Your task to perform on an android device: toggle javascript in the chrome app Image 0: 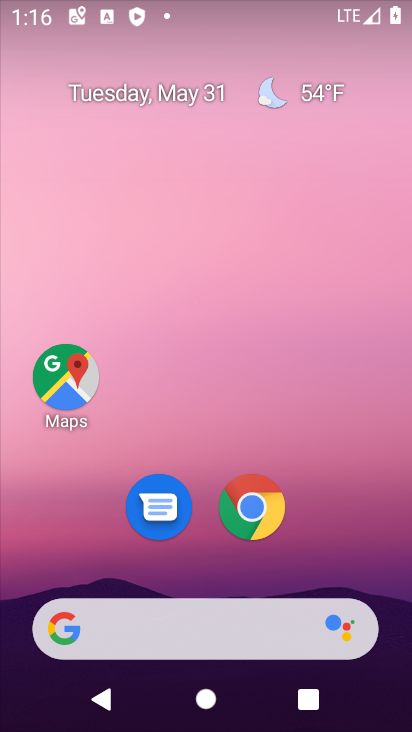
Step 0: drag from (388, 625) to (261, 125)
Your task to perform on an android device: toggle javascript in the chrome app Image 1: 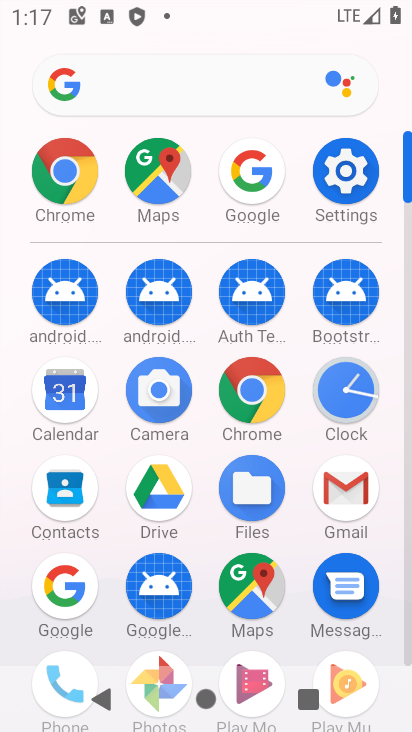
Step 1: click (68, 174)
Your task to perform on an android device: toggle javascript in the chrome app Image 2: 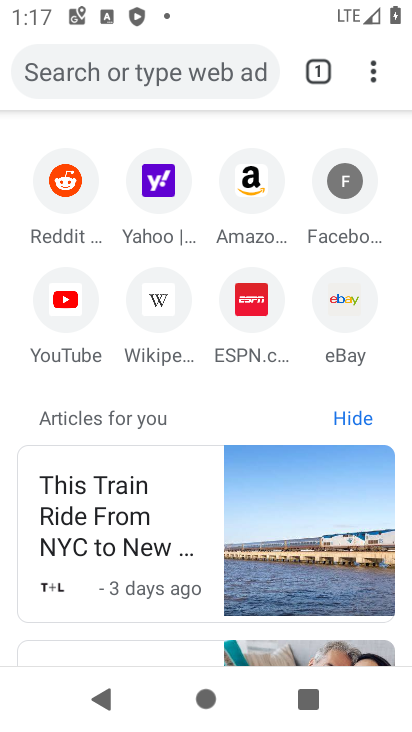
Step 2: click (379, 69)
Your task to perform on an android device: toggle javascript in the chrome app Image 3: 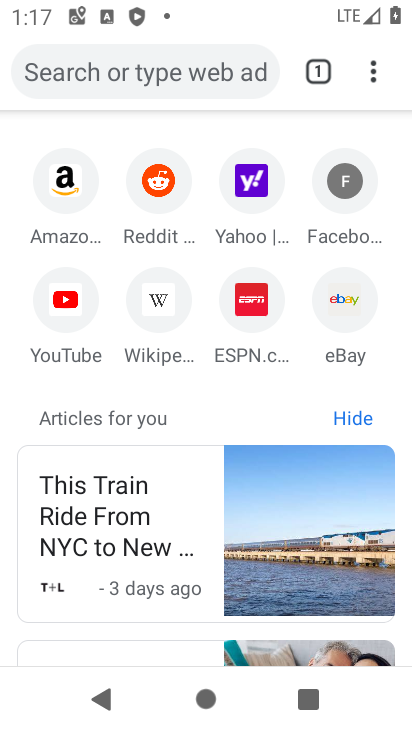
Step 3: click (376, 59)
Your task to perform on an android device: toggle javascript in the chrome app Image 4: 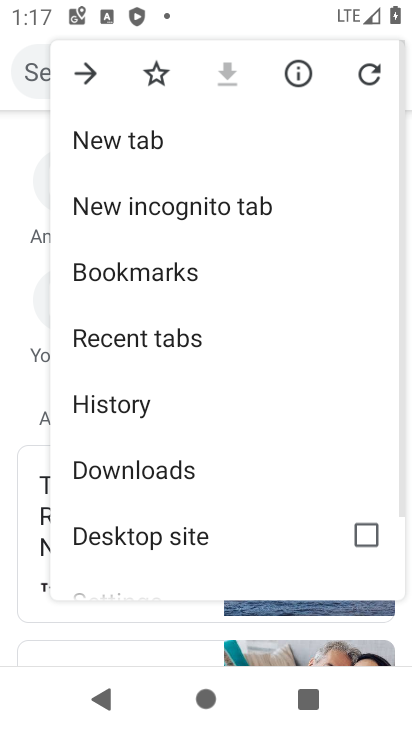
Step 4: drag from (146, 514) to (168, 99)
Your task to perform on an android device: toggle javascript in the chrome app Image 5: 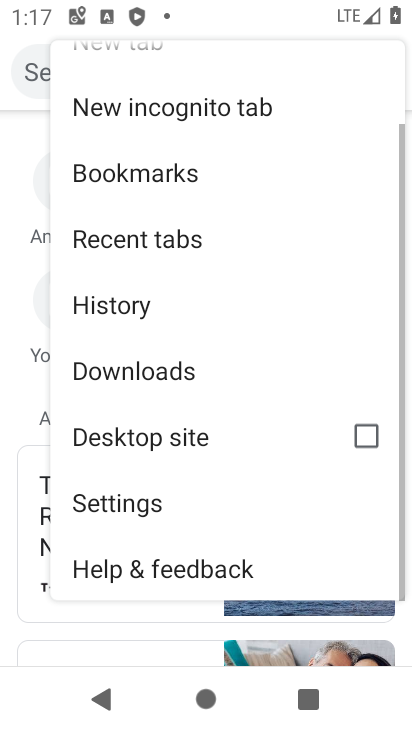
Step 5: click (125, 488)
Your task to perform on an android device: toggle javascript in the chrome app Image 6: 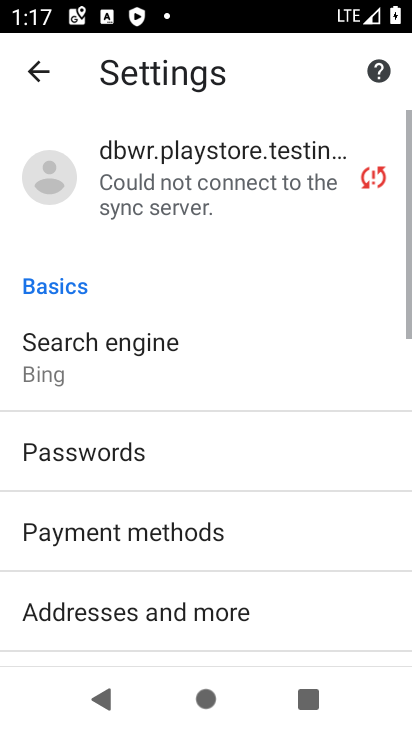
Step 6: drag from (115, 565) to (88, 98)
Your task to perform on an android device: toggle javascript in the chrome app Image 7: 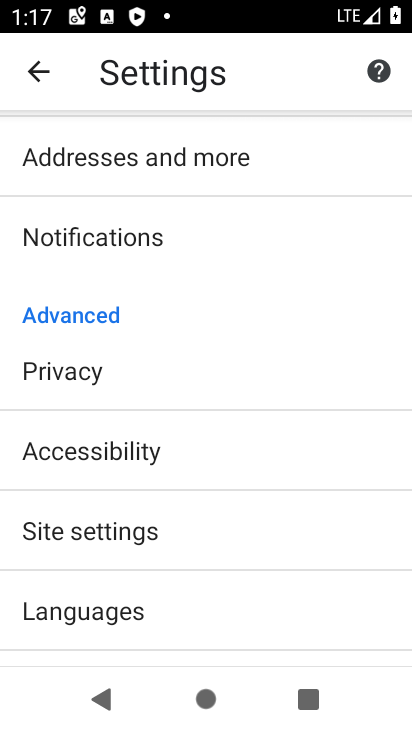
Step 7: click (146, 543)
Your task to perform on an android device: toggle javascript in the chrome app Image 8: 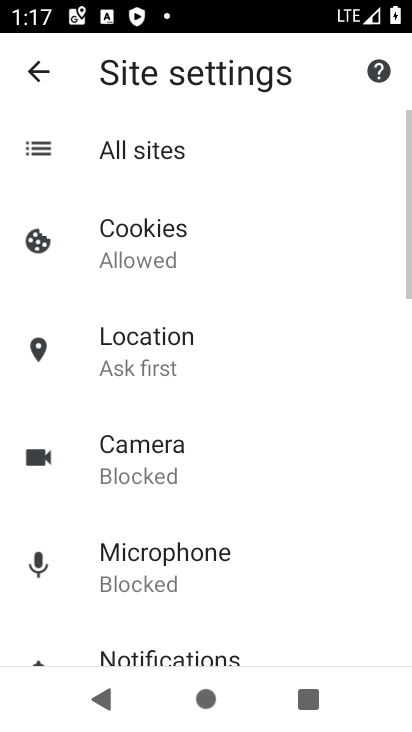
Step 8: drag from (177, 609) to (171, 137)
Your task to perform on an android device: toggle javascript in the chrome app Image 9: 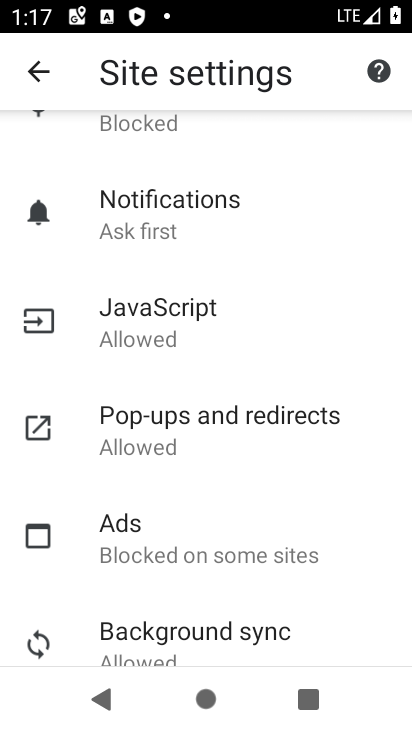
Step 9: click (213, 290)
Your task to perform on an android device: toggle javascript in the chrome app Image 10: 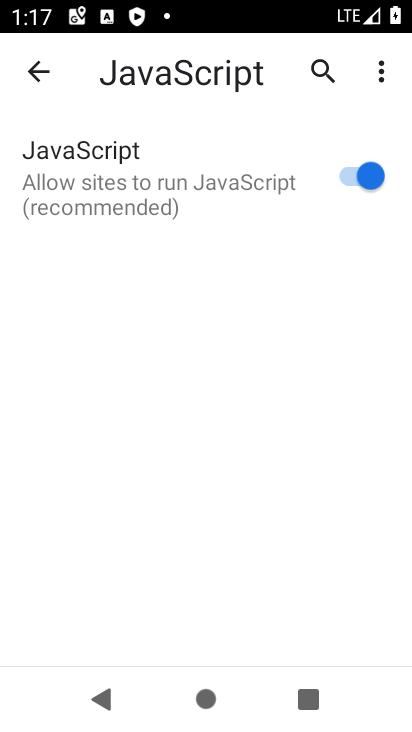
Step 10: click (331, 169)
Your task to perform on an android device: toggle javascript in the chrome app Image 11: 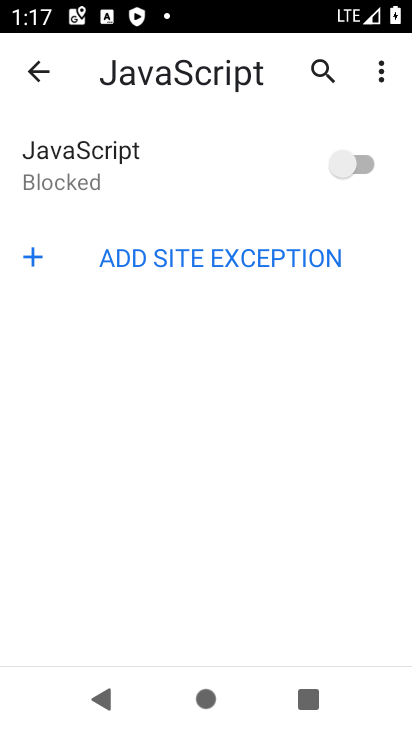
Step 11: task complete